Your task to perform on an android device: What's on my calendar today? Image 0: 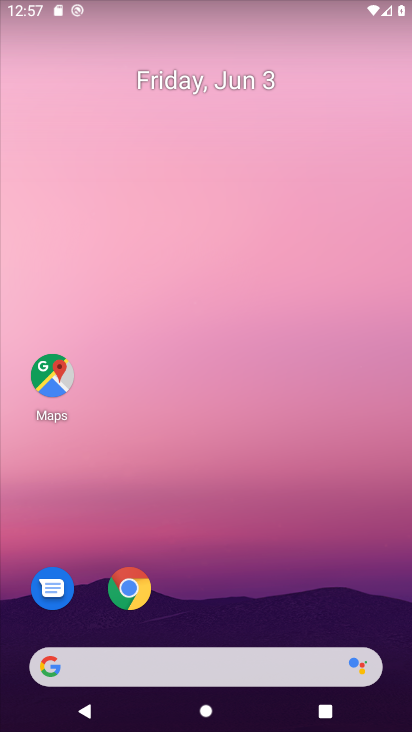
Step 0: drag from (293, 678) to (208, 114)
Your task to perform on an android device: What's on my calendar today? Image 1: 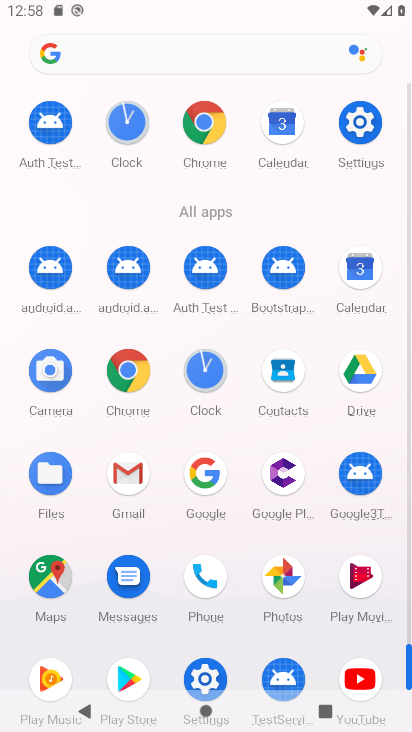
Step 1: click (357, 272)
Your task to perform on an android device: What's on my calendar today? Image 2: 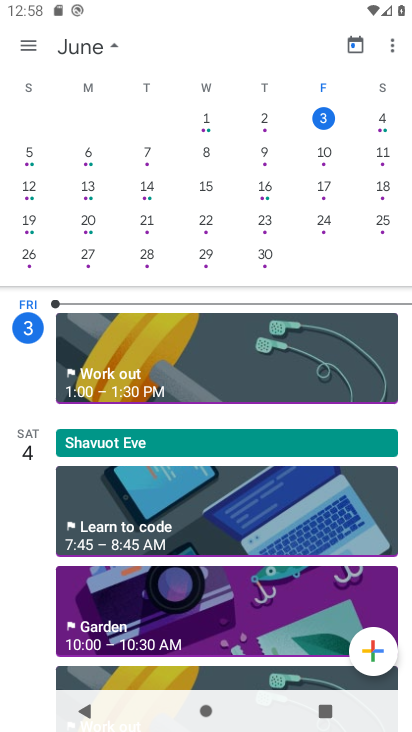
Step 2: task complete